Your task to perform on an android device: Go to eBay Image 0: 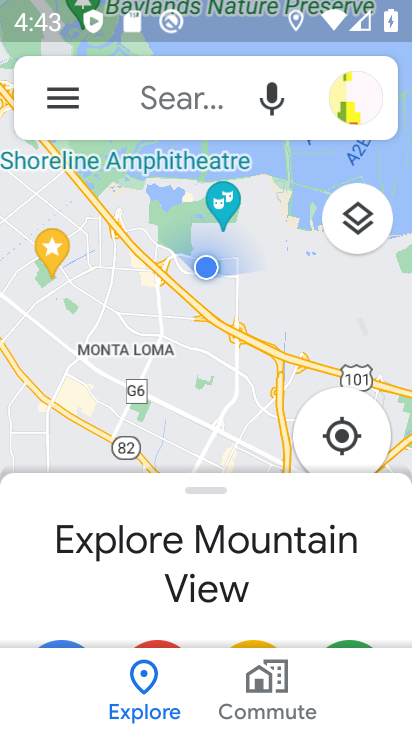
Step 0: press home button
Your task to perform on an android device: Go to eBay Image 1: 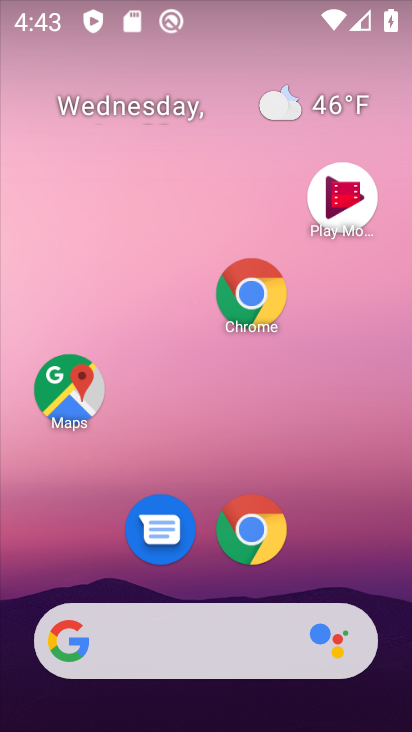
Step 1: click (248, 550)
Your task to perform on an android device: Go to eBay Image 2: 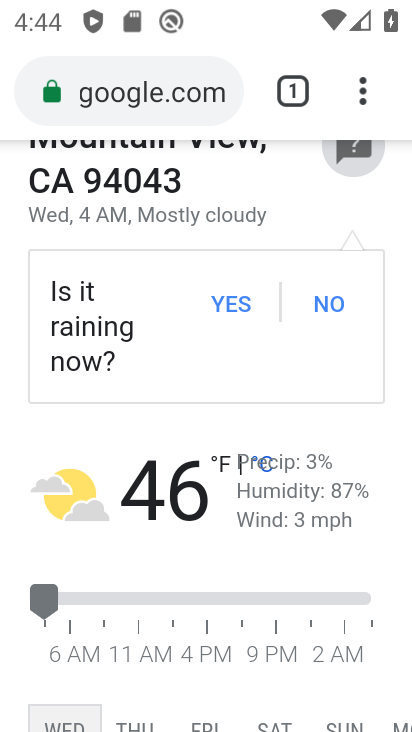
Step 2: click (173, 99)
Your task to perform on an android device: Go to eBay Image 3: 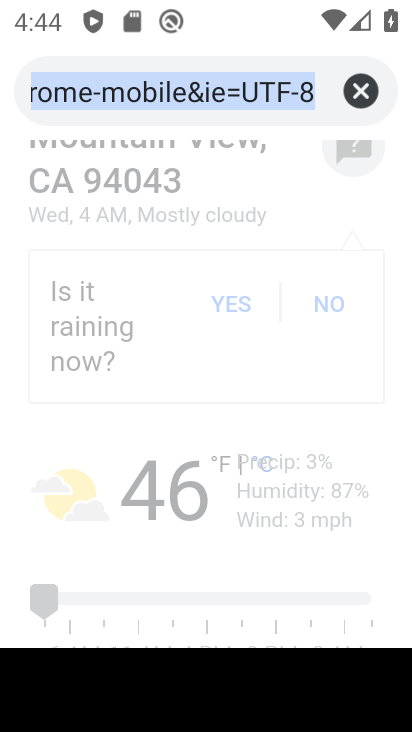
Step 3: type "ebay"
Your task to perform on an android device: Go to eBay Image 4: 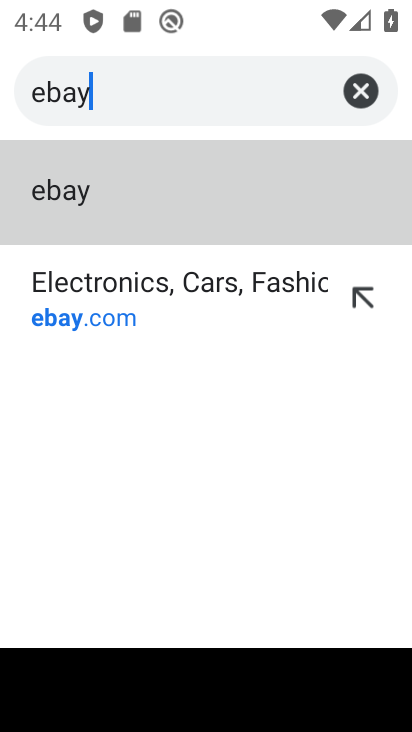
Step 4: click (129, 307)
Your task to perform on an android device: Go to eBay Image 5: 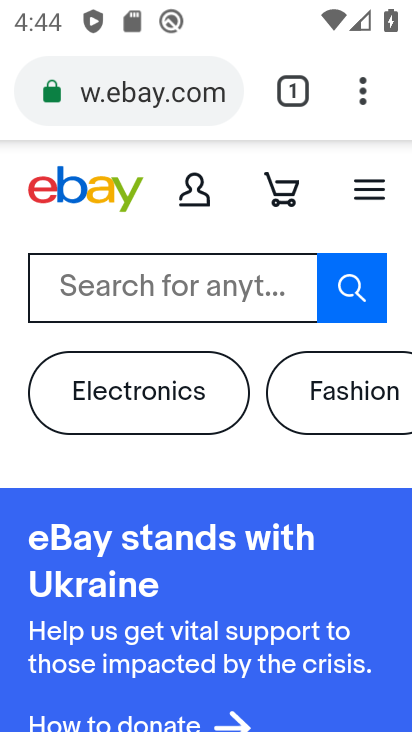
Step 5: task complete